Your task to perform on an android device: change notifications settings Image 0: 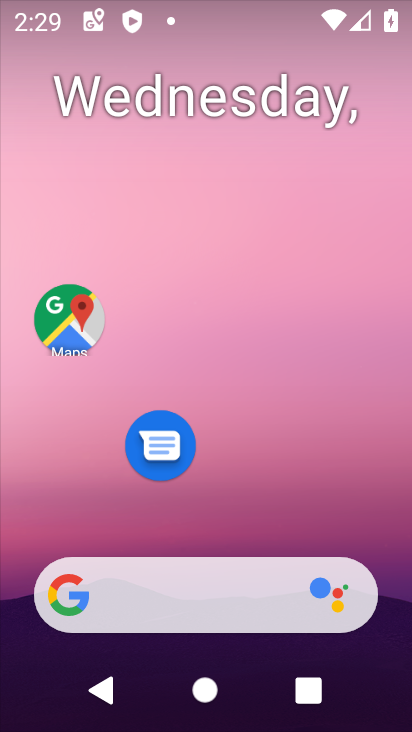
Step 0: drag from (233, 518) to (240, 172)
Your task to perform on an android device: change notifications settings Image 1: 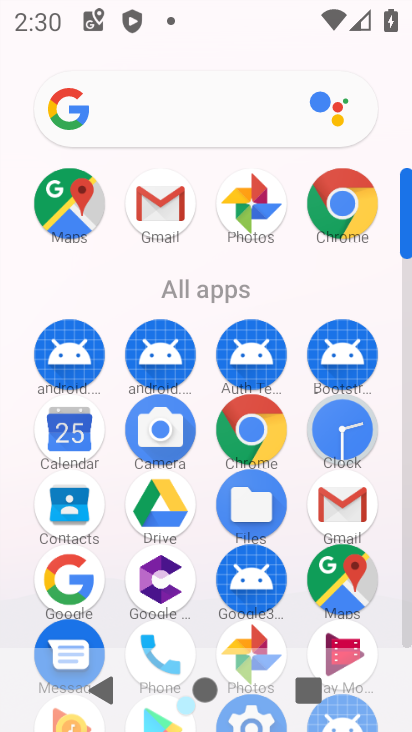
Step 1: drag from (290, 612) to (324, 280)
Your task to perform on an android device: change notifications settings Image 2: 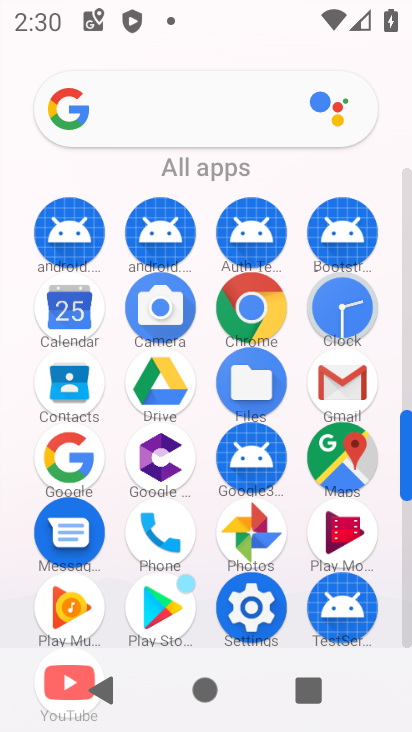
Step 2: click (243, 613)
Your task to perform on an android device: change notifications settings Image 3: 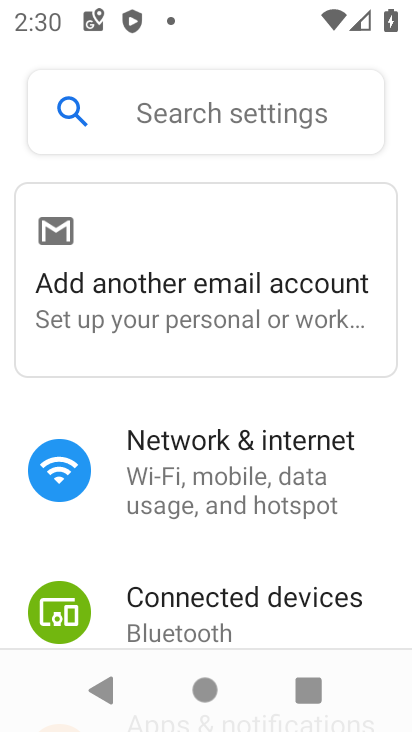
Step 3: drag from (235, 604) to (283, 151)
Your task to perform on an android device: change notifications settings Image 4: 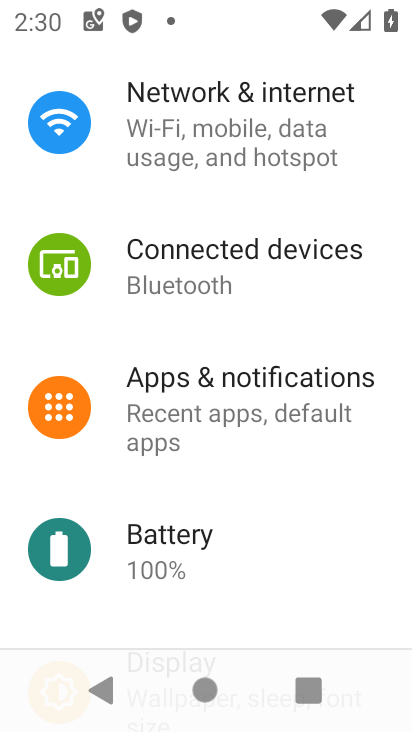
Step 4: drag from (232, 559) to (241, 169)
Your task to perform on an android device: change notifications settings Image 5: 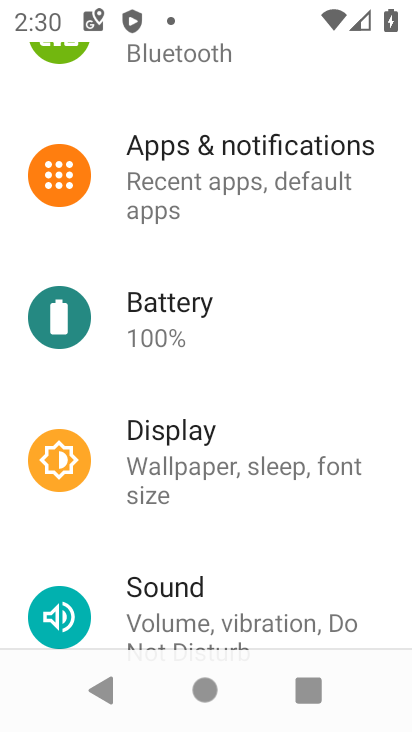
Step 5: click (210, 140)
Your task to perform on an android device: change notifications settings Image 6: 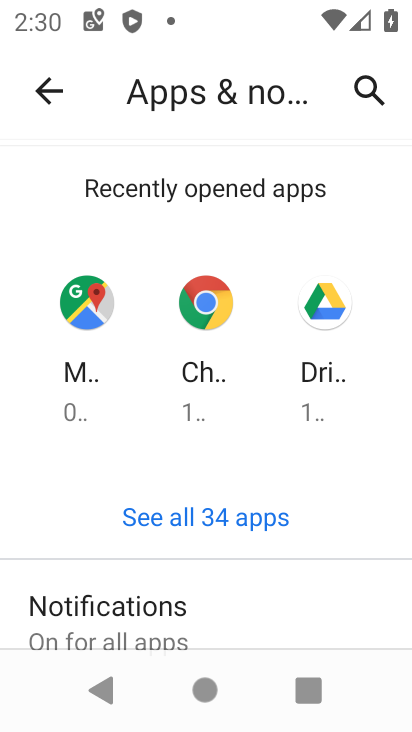
Step 6: click (111, 613)
Your task to perform on an android device: change notifications settings Image 7: 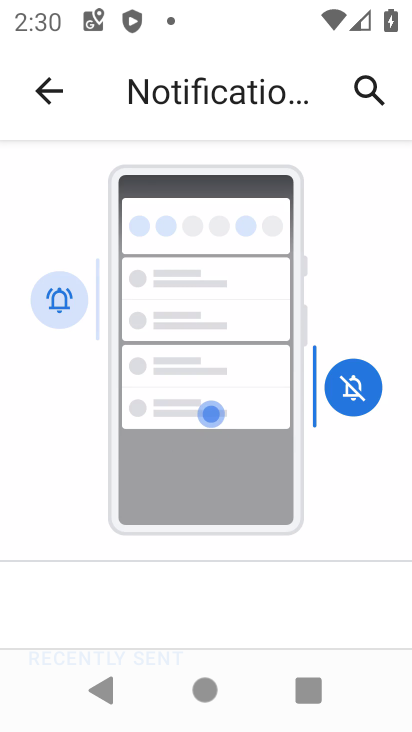
Step 7: drag from (173, 598) to (263, 225)
Your task to perform on an android device: change notifications settings Image 8: 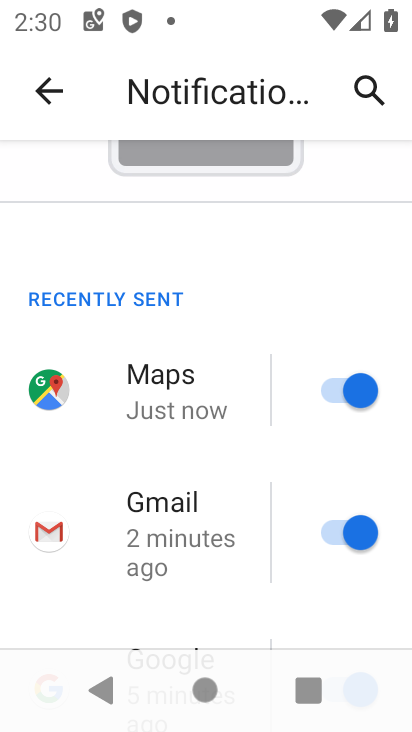
Step 8: drag from (207, 544) to (278, 155)
Your task to perform on an android device: change notifications settings Image 9: 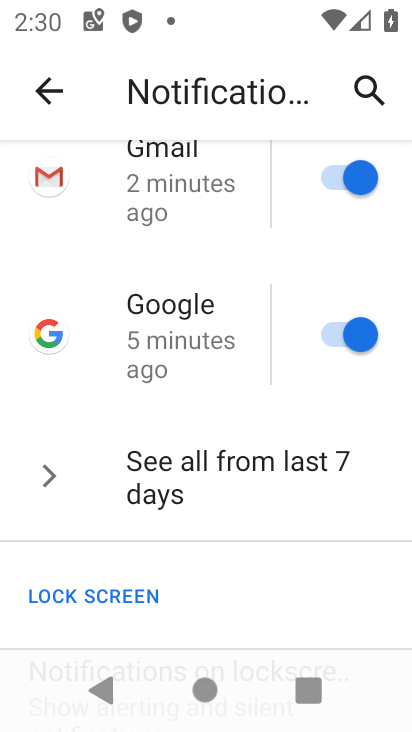
Step 9: drag from (254, 583) to (299, 195)
Your task to perform on an android device: change notifications settings Image 10: 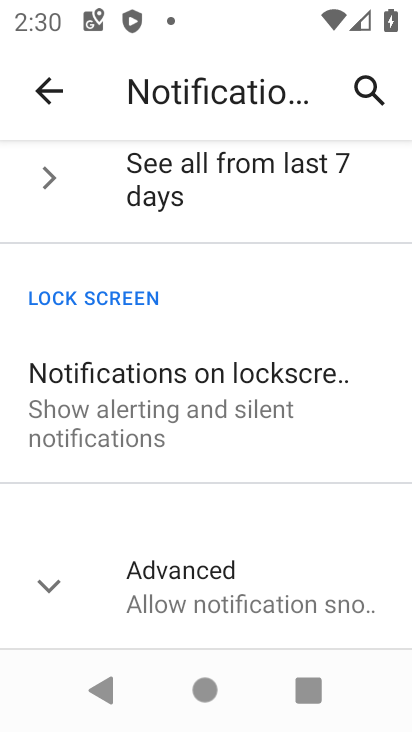
Step 10: drag from (250, 507) to (281, 316)
Your task to perform on an android device: change notifications settings Image 11: 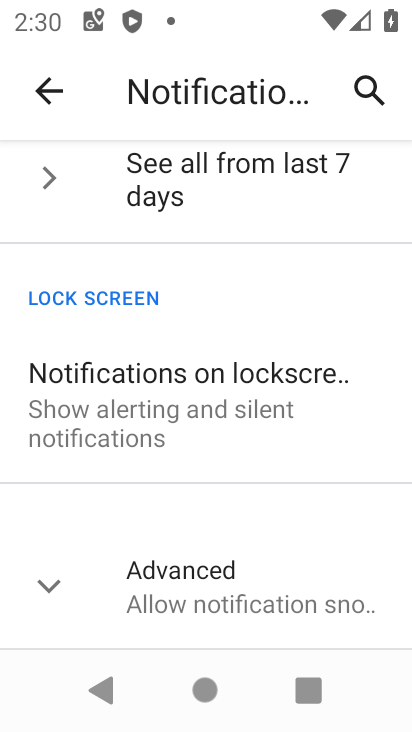
Step 11: click (113, 415)
Your task to perform on an android device: change notifications settings Image 12: 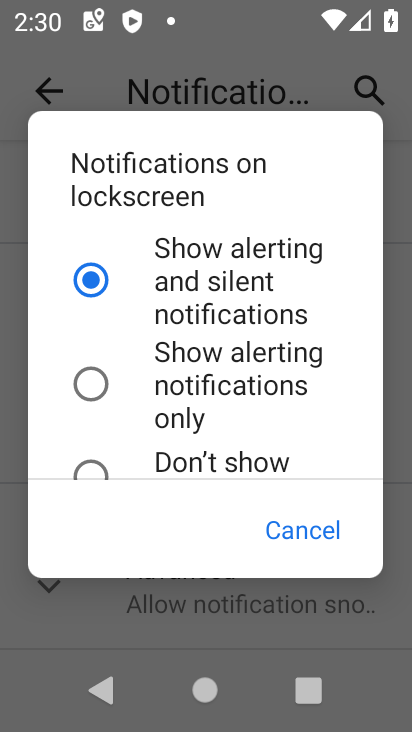
Step 12: click (99, 485)
Your task to perform on an android device: change notifications settings Image 13: 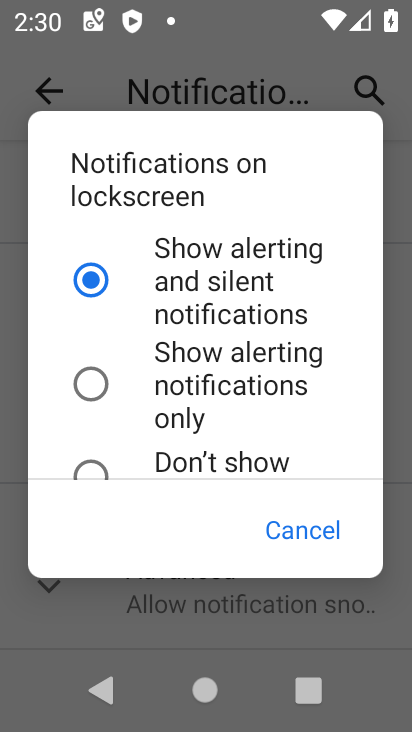
Step 13: click (88, 476)
Your task to perform on an android device: change notifications settings Image 14: 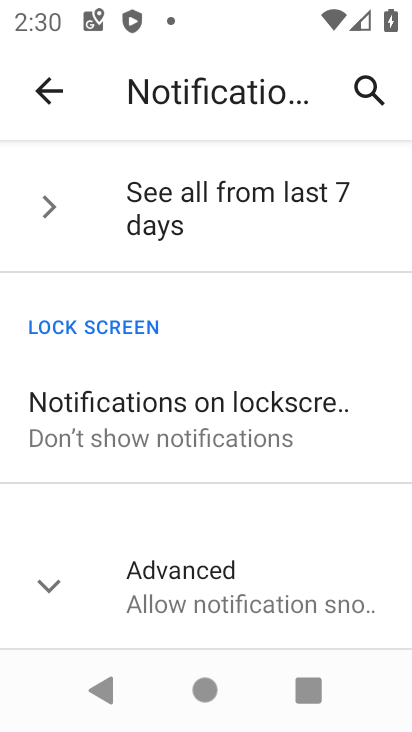
Step 14: task complete